Your task to perform on an android device: turn notification dots off Image 0: 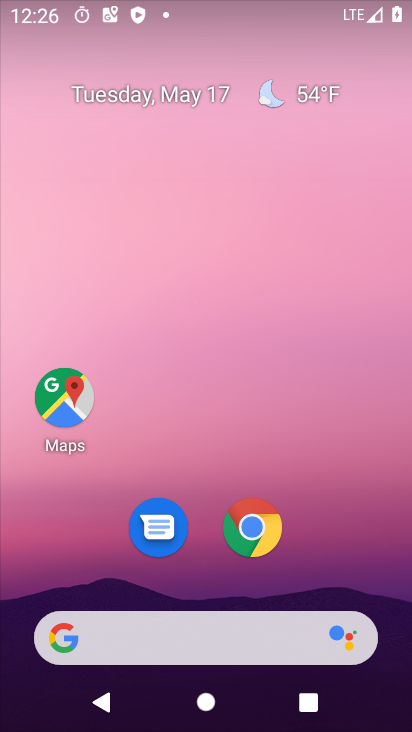
Step 0: drag from (262, 651) to (241, 154)
Your task to perform on an android device: turn notification dots off Image 1: 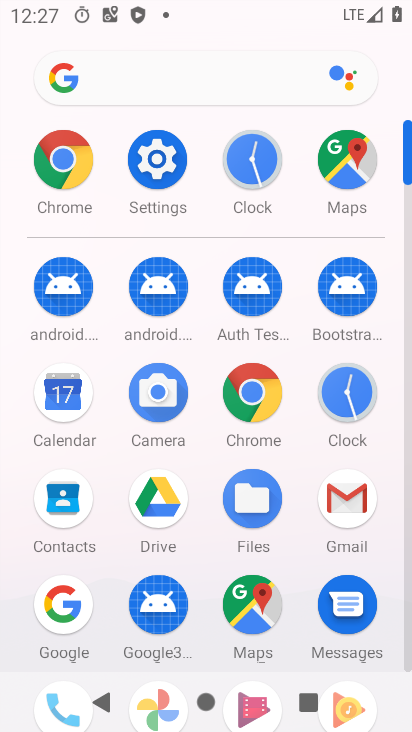
Step 1: click (137, 154)
Your task to perform on an android device: turn notification dots off Image 2: 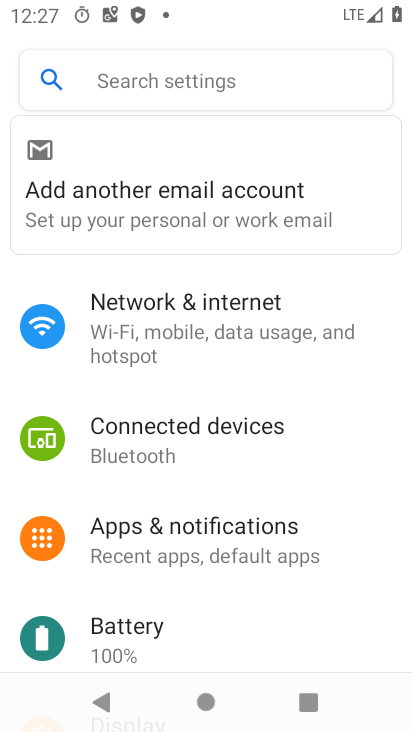
Step 2: click (152, 71)
Your task to perform on an android device: turn notification dots off Image 3: 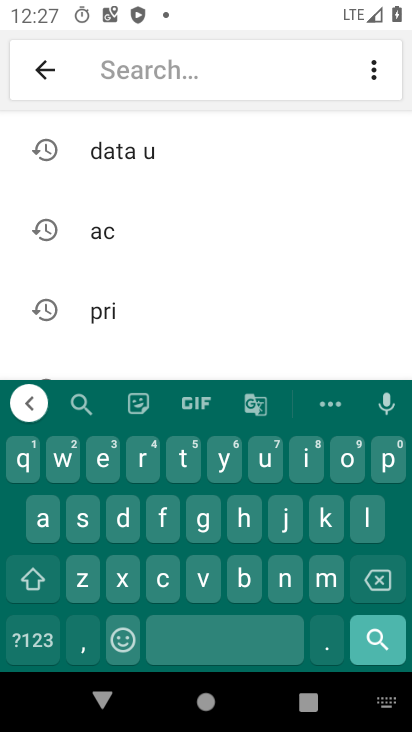
Step 3: click (123, 526)
Your task to perform on an android device: turn notification dots off Image 4: 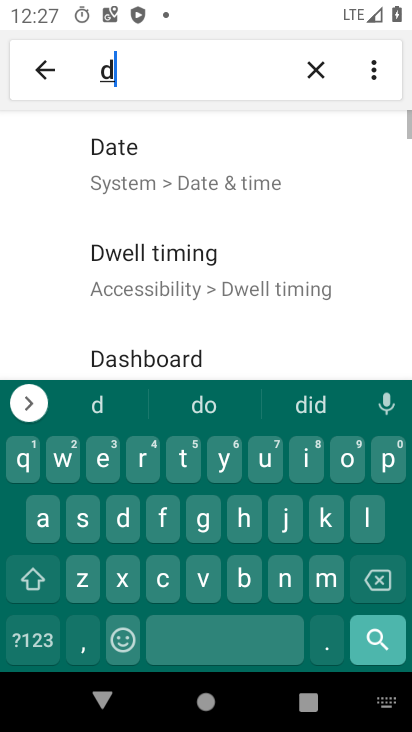
Step 4: click (344, 457)
Your task to perform on an android device: turn notification dots off Image 5: 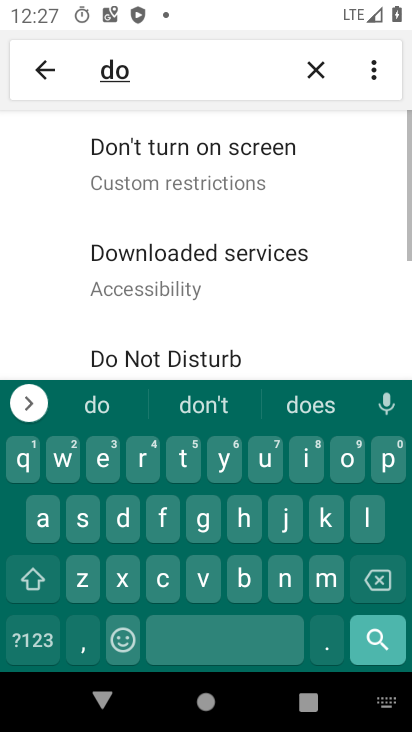
Step 5: click (184, 464)
Your task to perform on an android device: turn notification dots off Image 6: 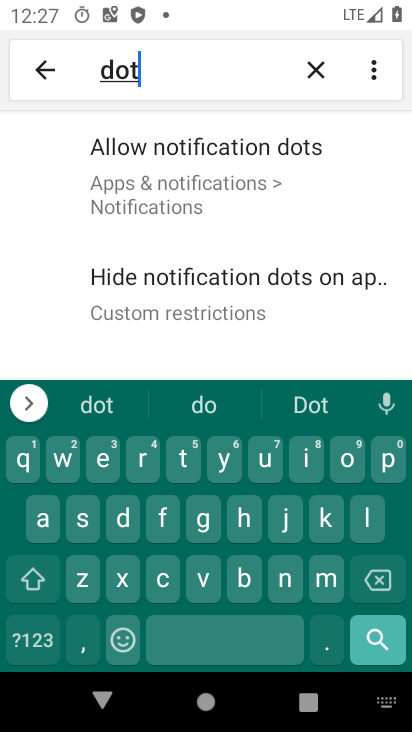
Step 6: click (181, 156)
Your task to perform on an android device: turn notification dots off Image 7: 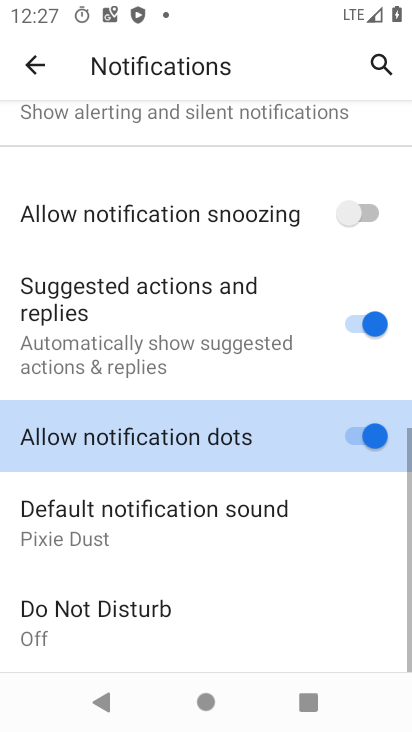
Step 7: click (316, 441)
Your task to perform on an android device: turn notification dots off Image 8: 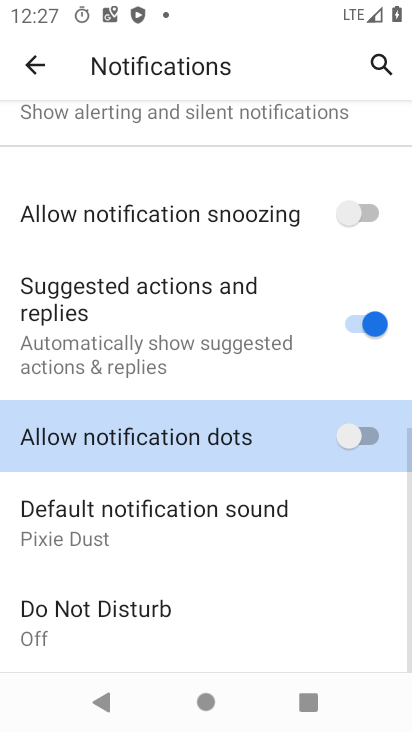
Step 8: task complete